Your task to perform on an android device: Is it going to rain today? Image 0: 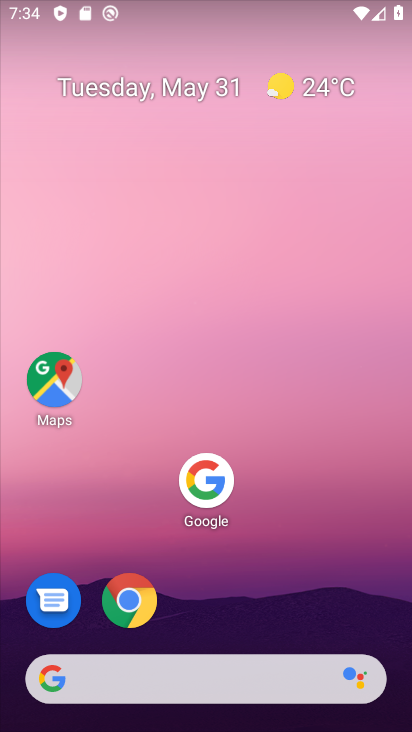
Step 0: press home button
Your task to perform on an android device: Is it going to rain today? Image 1: 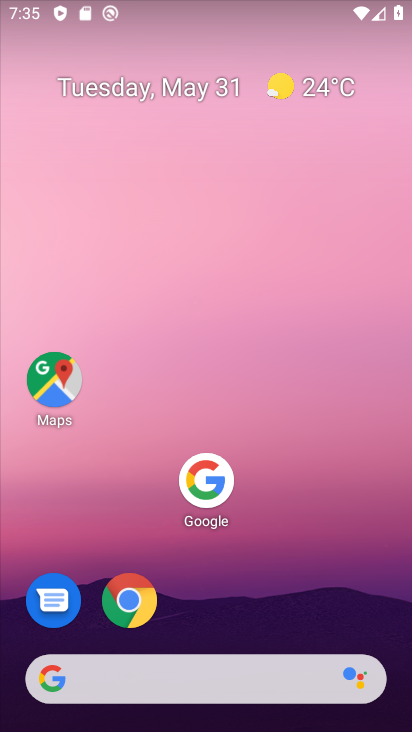
Step 1: click (313, 89)
Your task to perform on an android device: Is it going to rain today? Image 2: 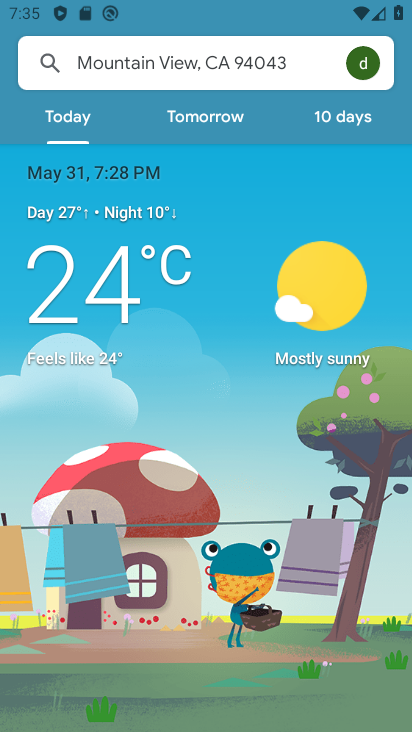
Step 2: task complete